Your task to perform on an android device: turn off smart reply in the gmail app Image 0: 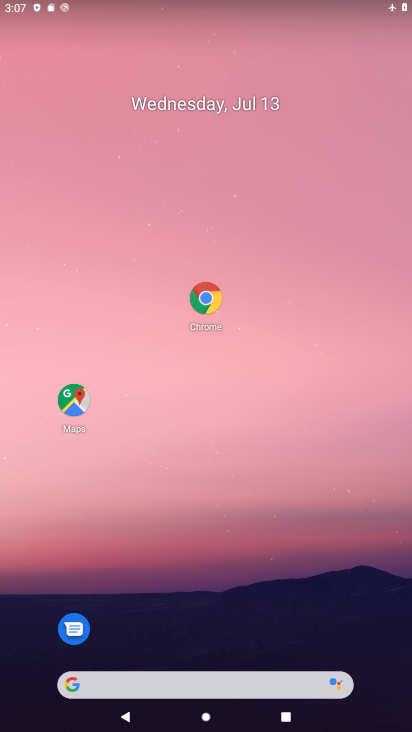
Step 0: drag from (223, 591) to (237, 48)
Your task to perform on an android device: turn off smart reply in the gmail app Image 1: 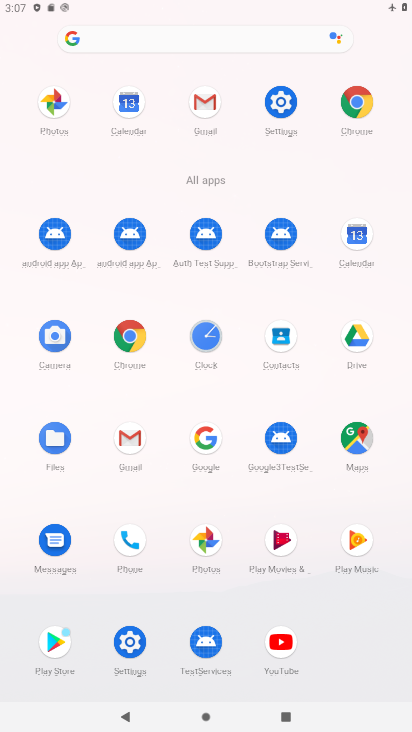
Step 1: click (215, 99)
Your task to perform on an android device: turn off smart reply in the gmail app Image 2: 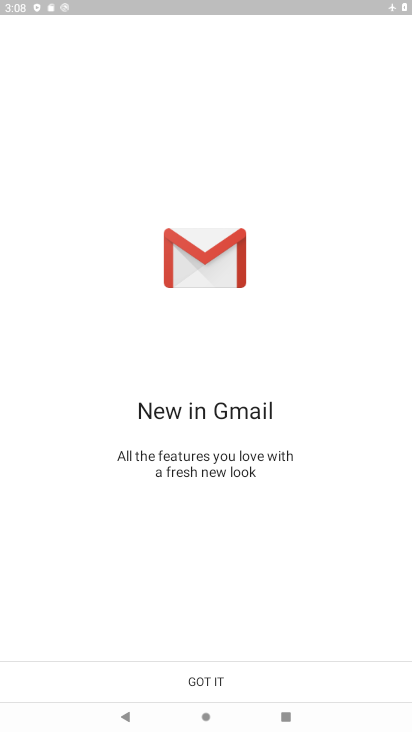
Step 2: click (160, 678)
Your task to perform on an android device: turn off smart reply in the gmail app Image 3: 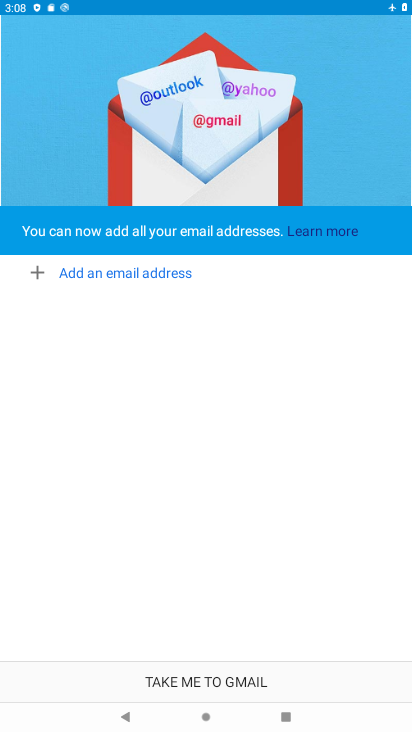
Step 3: click (160, 678)
Your task to perform on an android device: turn off smart reply in the gmail app Image 4: 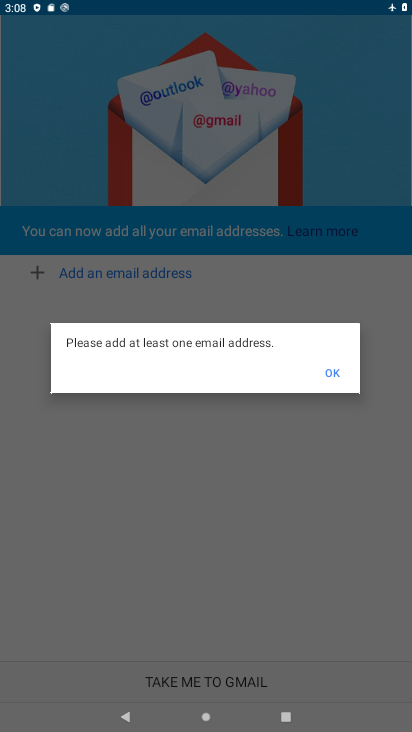
Step 4: click (328, 371)
Your task to perform on an android device: turn off smart reply in the gmail app Image 5: 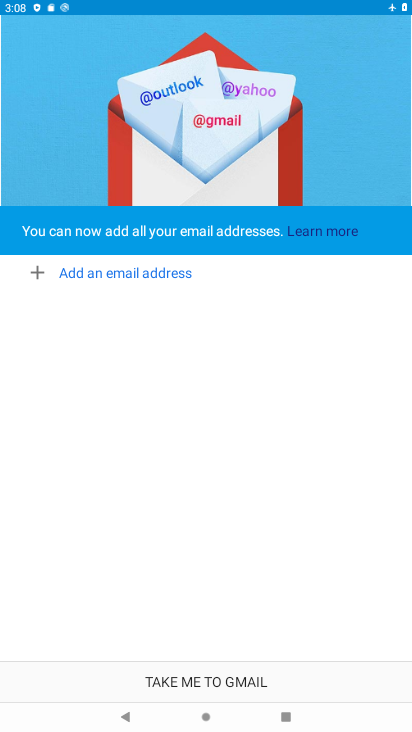
Step 5: task complete